Your task to perform on an android device: turn off notifications settings in the gmail app Image 0: 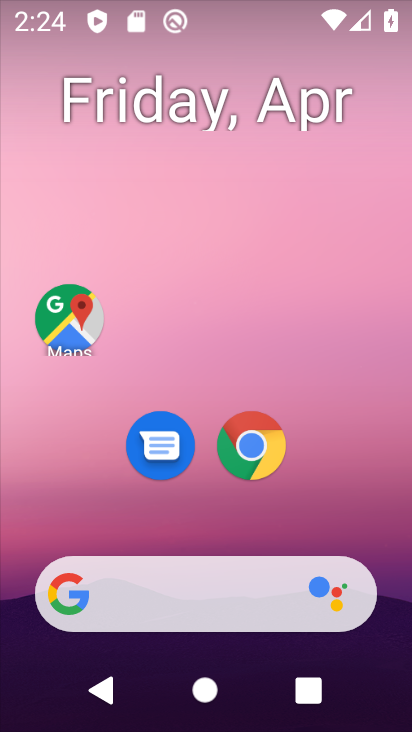
Step 0: drag from (327, 516) to (334, 82)
Your task to perform on an android device: turn off notifications settings in the gmail app Image 1: 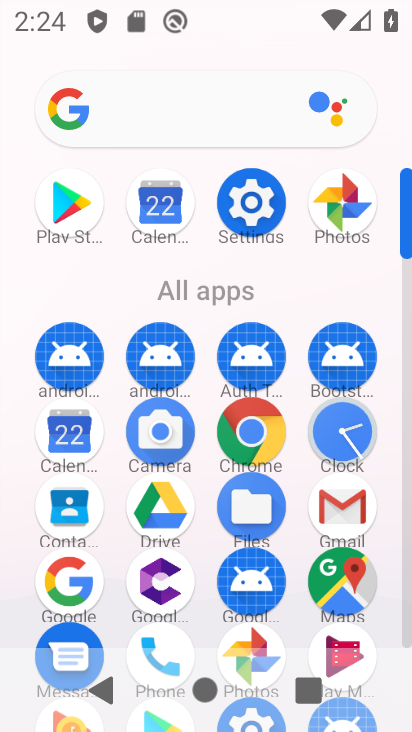
Step 1: click (343, 509)
Your task to perform on an android device: turn off notifications settings in the gmail app Image 2: 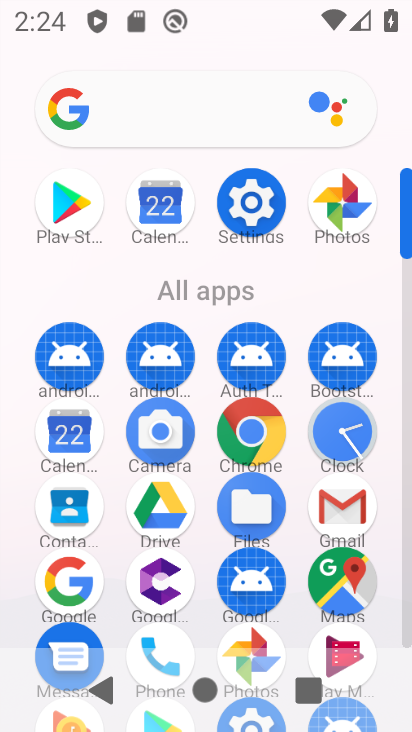
Step 2: click (343, 509)
Your task to perform on an android device: turn off notifications settings in the gmail app Image 3: 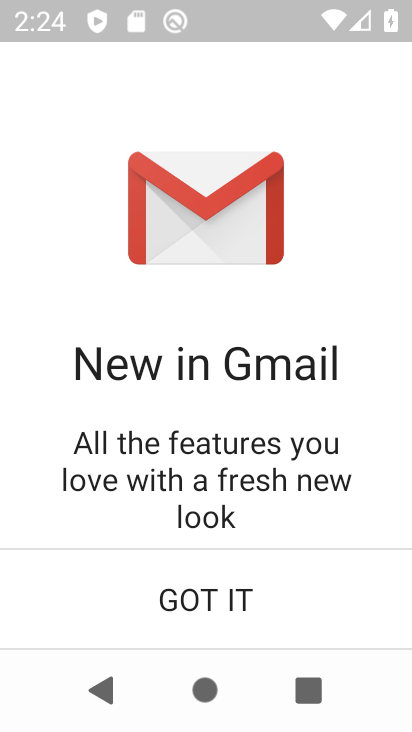
Step 3: click (252, 612)
Your task to perform on an android device: turn off notifications settings in the gmail app Image 4: 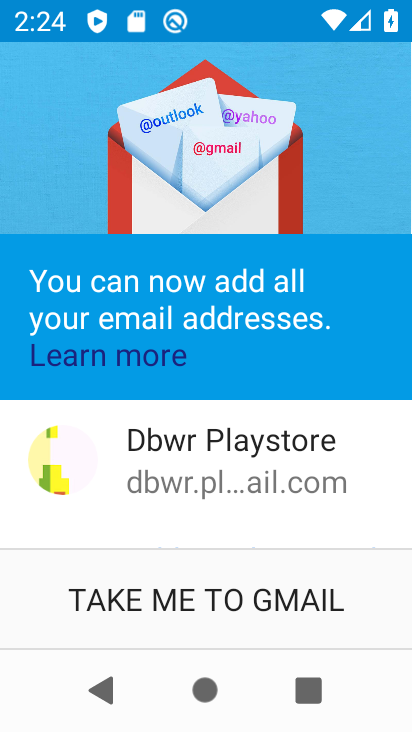
Step 4: click (252, 612)
Your task to perform on an android device: turn off notifications settings in the gmail app Image 5: 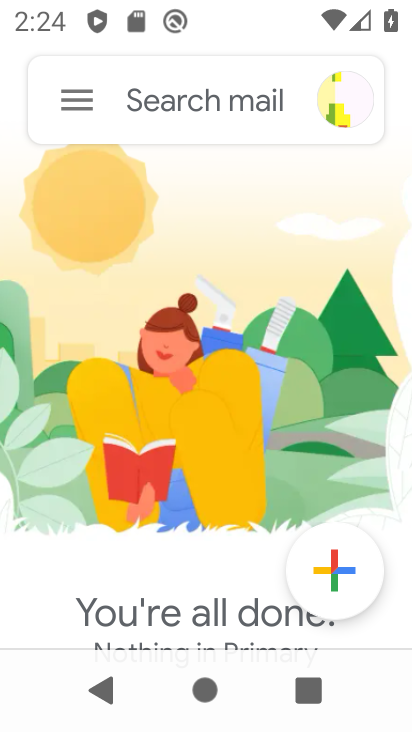
Step 5: click (68, 106)
Your task to perform on an android device: turn off notifications settings in the gmail app Image 6: 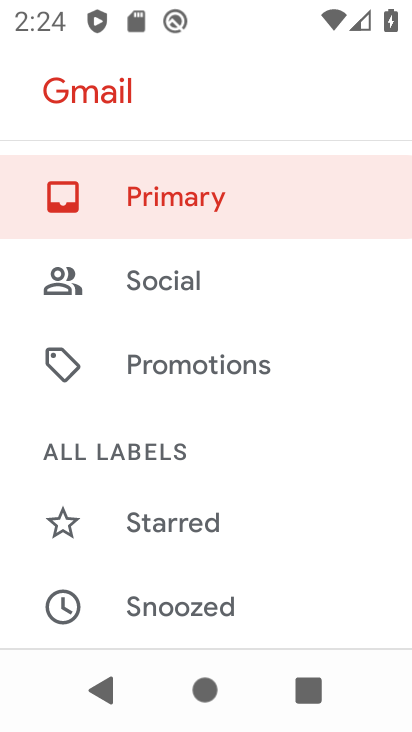
Step 6: drag from (266, 536) to (313, 324)
Your task to perform on an android device: turn off notifications settings in the gmail app Image 7: 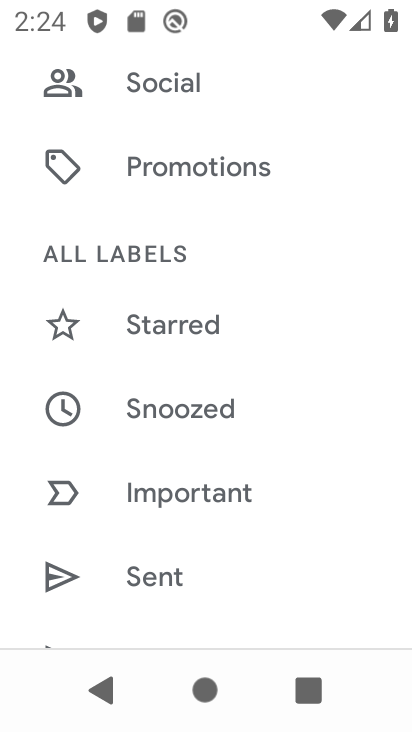
Step 7: drag from (259, 395) to (294, 276)
Your task to perform on an android device: turn off notifications settings in the gmail app Image 8: 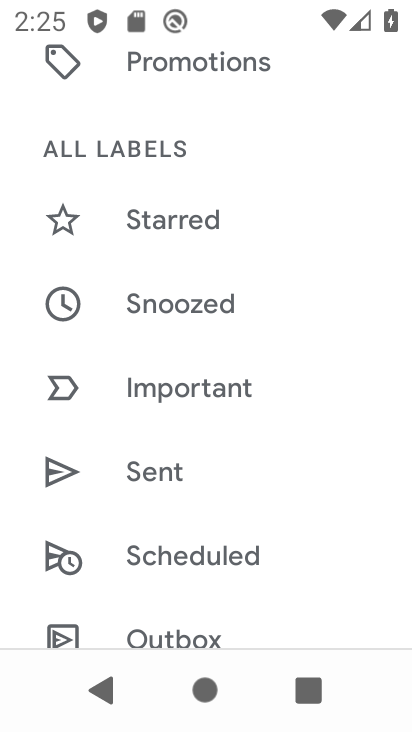
Step 8: drag from (295, 394) to (337, 297)
Your task to perform on an android device: turn off notifications settings in the gmail app Image 9: 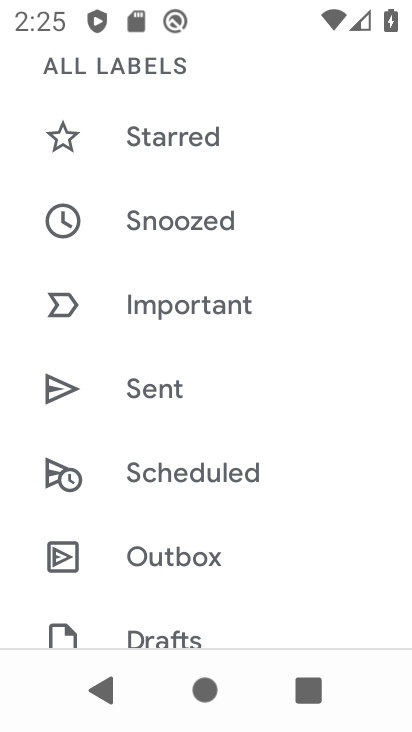
Step 9: drag from (255, 405) to (320, 261)
Your task to perform on an android device: turn off notifications settings in the gmail app Image 10: 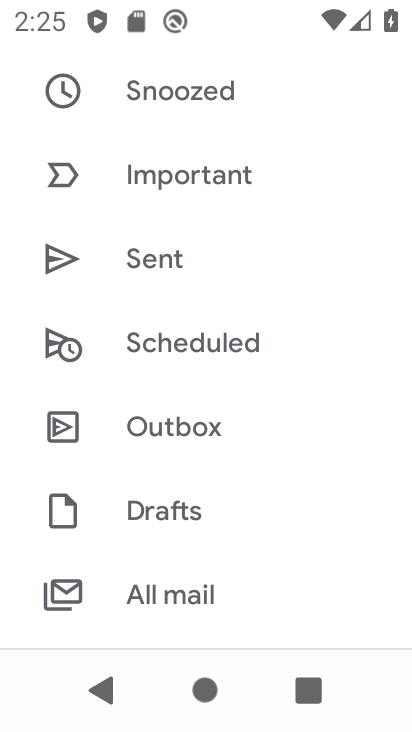
Step 10: drag from (238, 397) to (291, 298)
Your task to perform on an android device: turn off notifications settings in the gmail app Image 11: 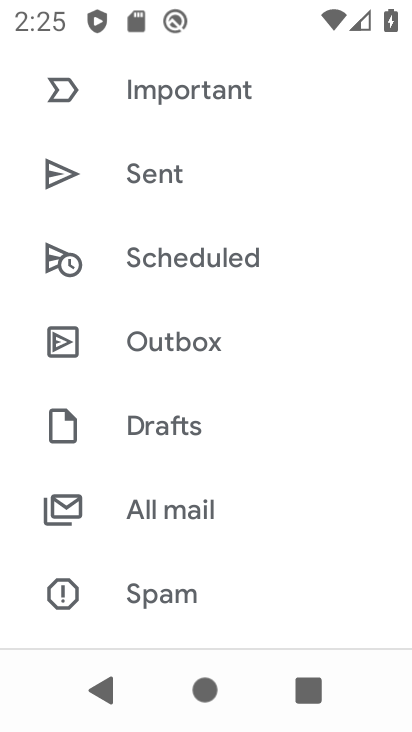
Step 11: drag from (229, 432) to (284, 301)
Your task to perform on an android device: turn off notifications settings in the gmail app Image 12: 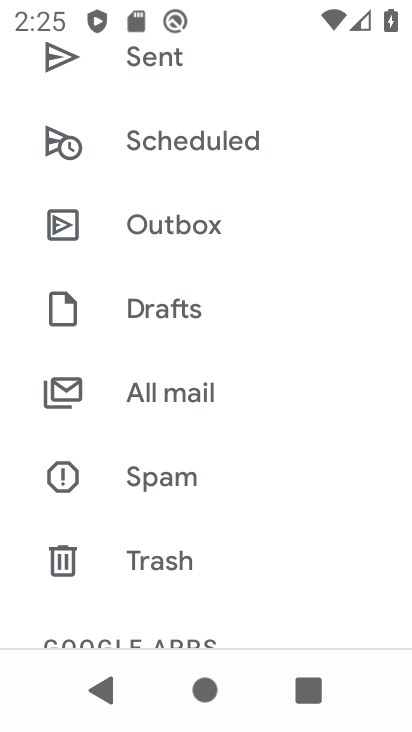
Step 12: drag from (225, 454) to (272, 319)
Your task to perform on an android device: turn off notifications settings in the gmail app Image 13: 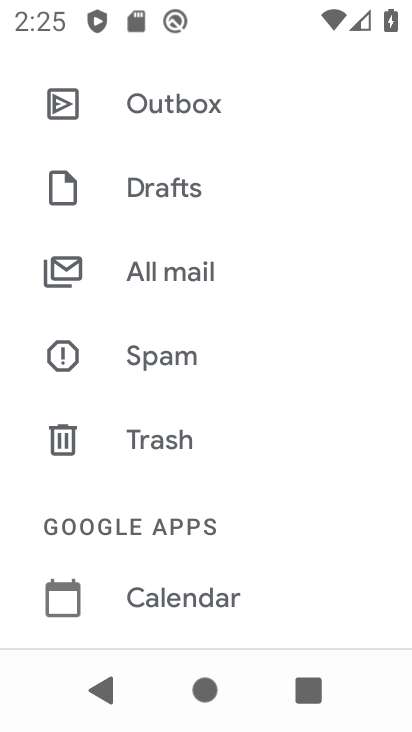
Step 13: drag from (212, 424) to (258, 353)
Your task to perform on an android device: turn off notifications settings in the gmail app Image 14: 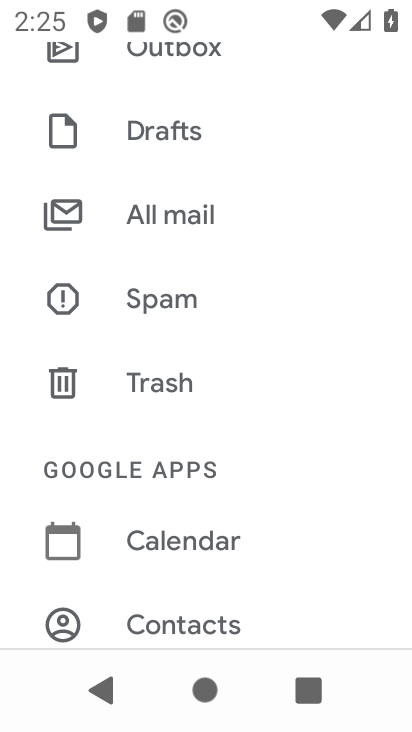
Step 14: drag from (217, 445) to (270, 360)
Your task to perform on an android device: turn off notifications settings in the gmail app Image 15: 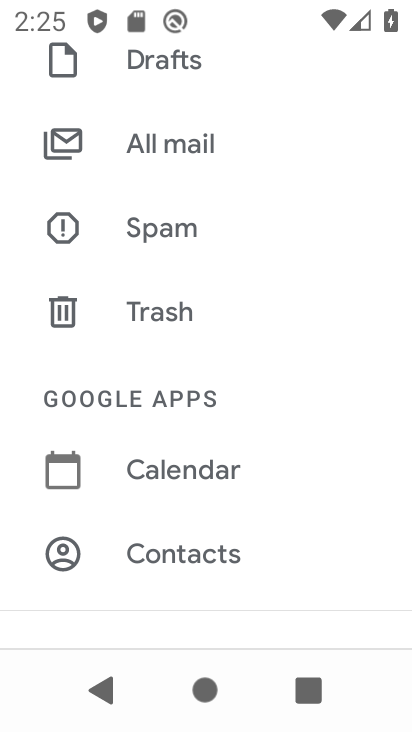
Step 15: drag from (252, 496) to (299, 399)
Your task to perform on an android device: turn off notifications settings in the gmail app Image 16: 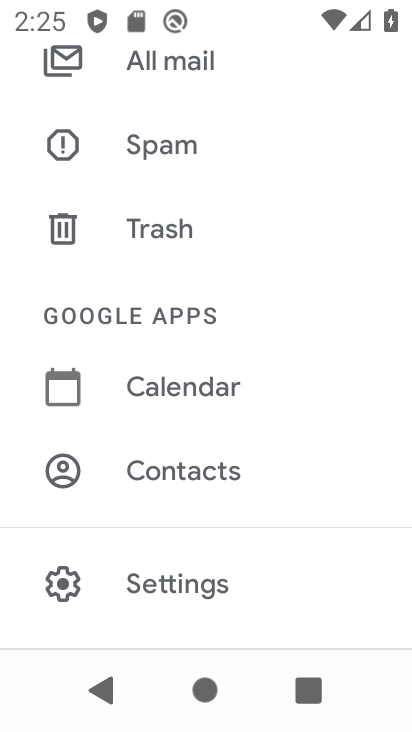
Step 16: click (180, 580)
Your task to perform on an android device: turn off notifications settings in the gmail app Image 17: 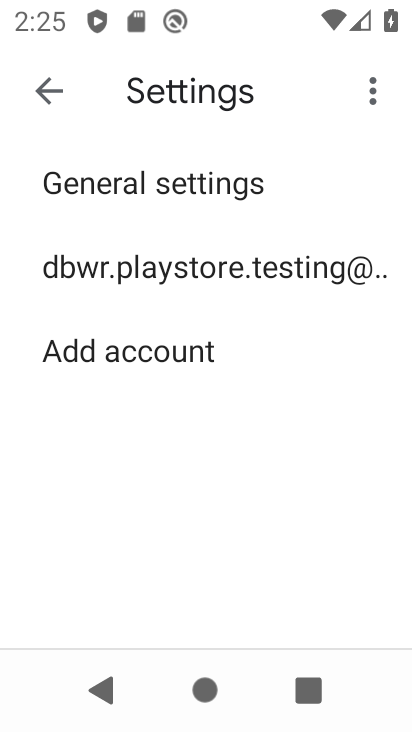
Step 17: click (194, 266)
Your task to perform on an android device: turn off notifications settings in the gmail app Image 18: 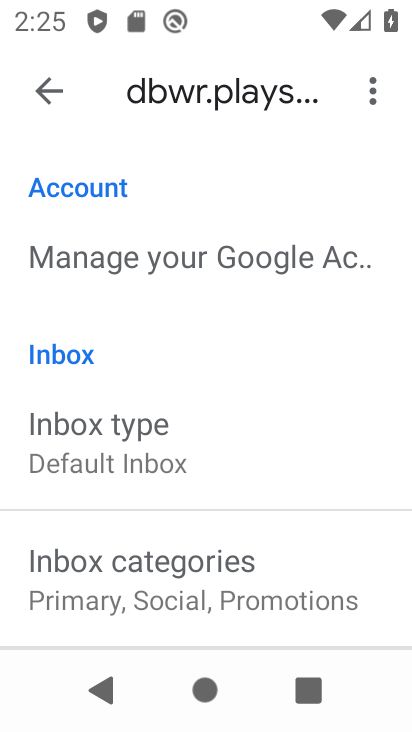
Step 18: drag from (228, 484) to (258, 302)
Your task to perform on an android device: turn off notifications settings in the gmail app Image 19: 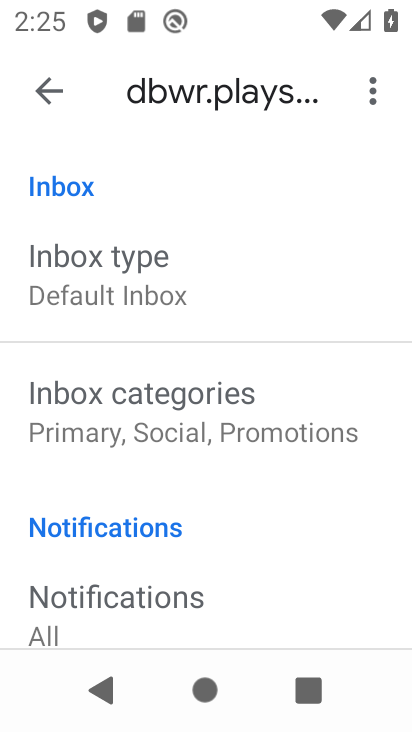
Step 19: drag from (197, 488) to (246, 315)
Your task to perform on an android device: turn off notifications settings in the gmail app Image 20: 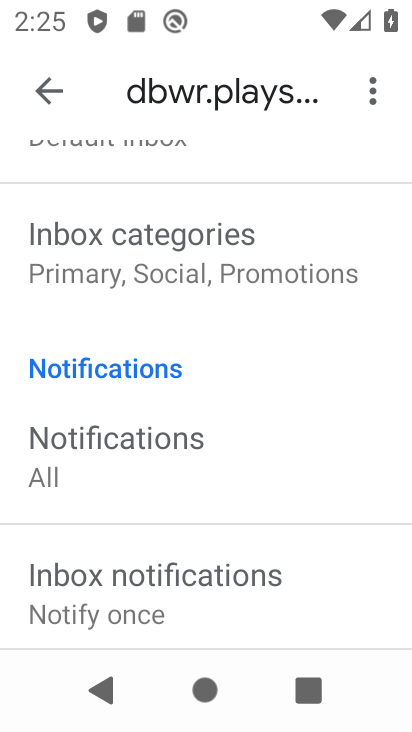
Step 20: drag from (193, 505) to (258, 373)
Your task to perform on an android device: turn off notifications settings in the gmail app Image 21: 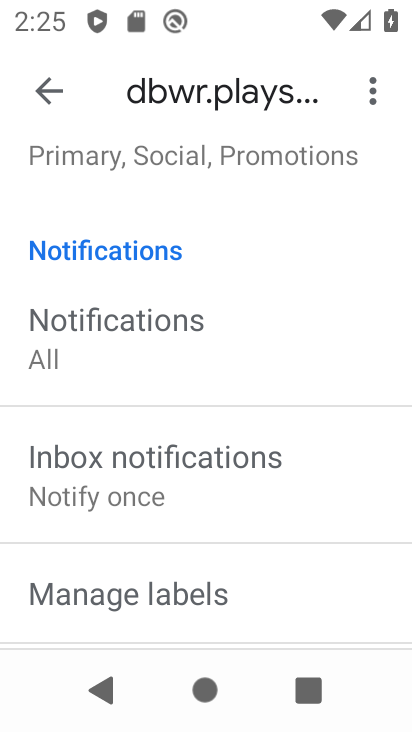
Step 21: drag from (198, 542) to (252, 357)
Your task to perform on an android device: turn off notifications settings in the gmail app Image 22: 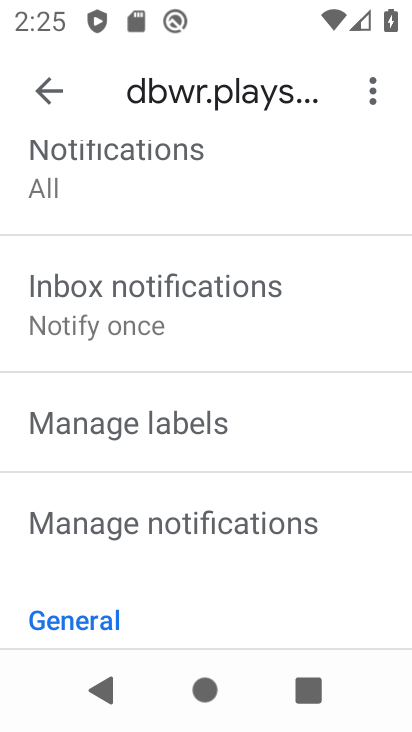
Step 22: drag from (180, 468) to (259, 316)
Your task to perform on an android device: turn off notifications settings in the gmail app Image 23: 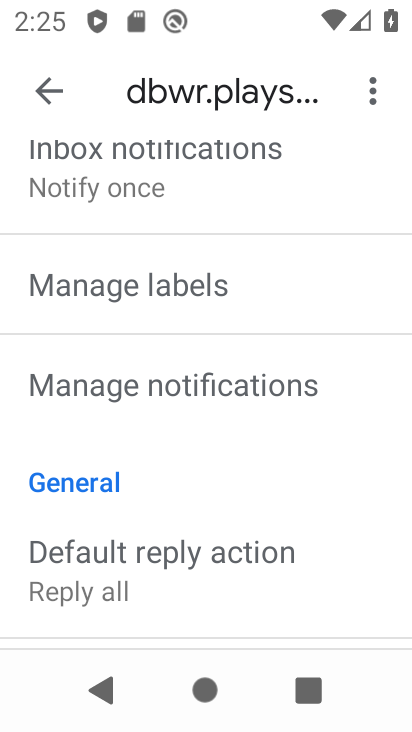
Step 23: click (208, 385)
Your task to perform on an android device: turn off notifications settings in the gmail app Image 24: 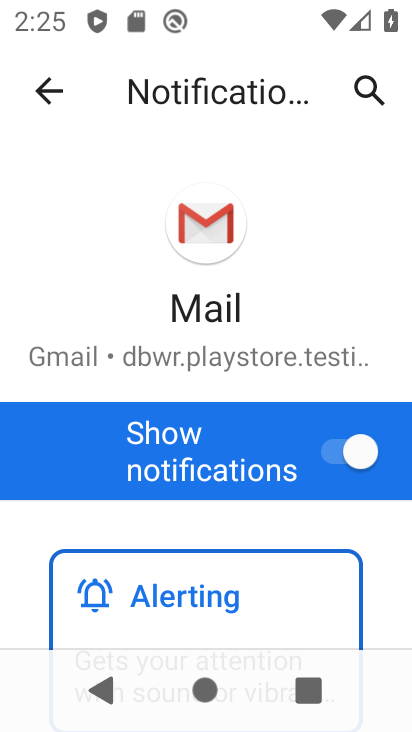
Step 24: click (371, 455)
Your task to perform on an android device: turn off notifications settings in the gmail app Image 25: 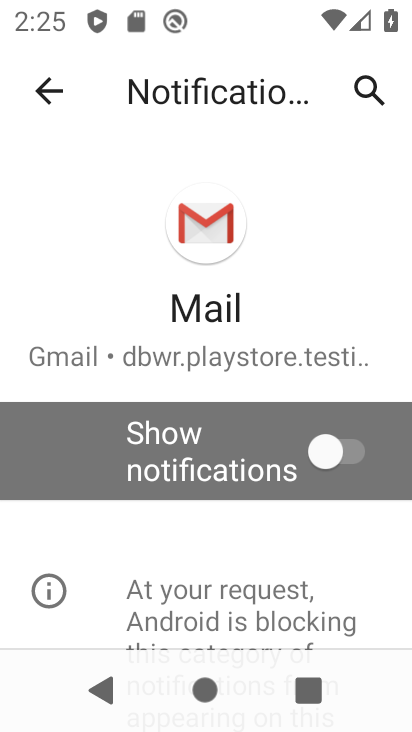
Step 25: task complete